Your task to perform on an android device: make emails show in primary in the gmail app Image 0: 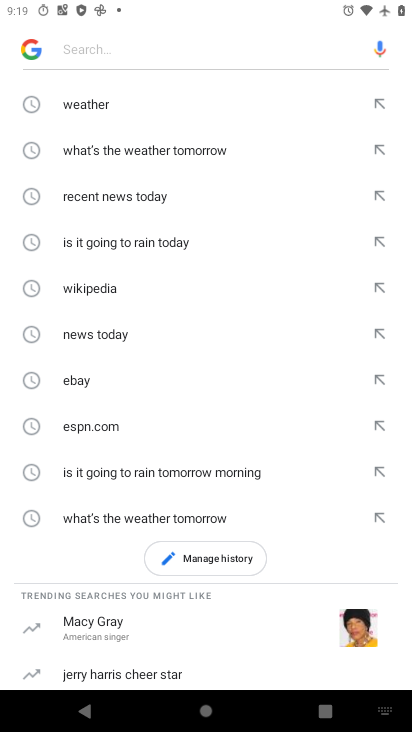
Step 0: press home button
Your task to perform on an android device: make emails show in primary in the gmail app Image 1: 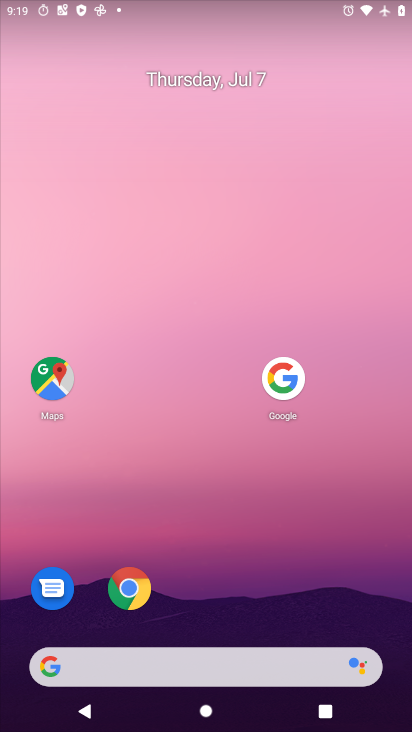
Step 1: drag from (152, 668) to (263, 56)
Your task to perform on an android device: make emails show in primary in the gmail app Image 2: 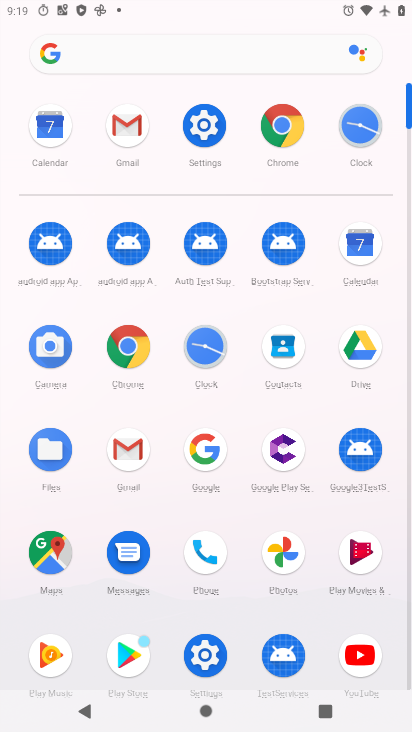
Step 2: click (127, 452)
Your task to perform on an android device: make emails show in primary in the gmail app Image 3: 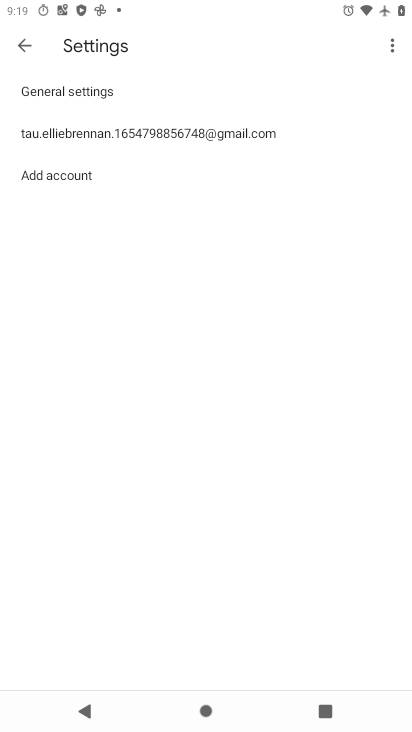
Step 3: click (173, 133)
Your task to perform on an android device: make emails show in primary in the gmail app Image 4: 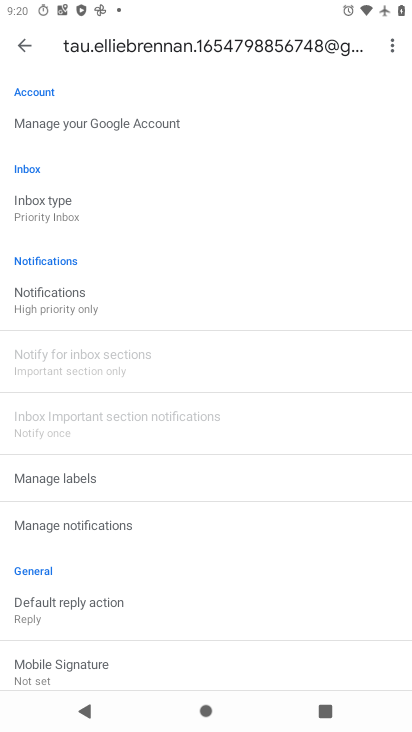
Step 4: task complete